Your task to perform on an android device: Check the news Image 0: 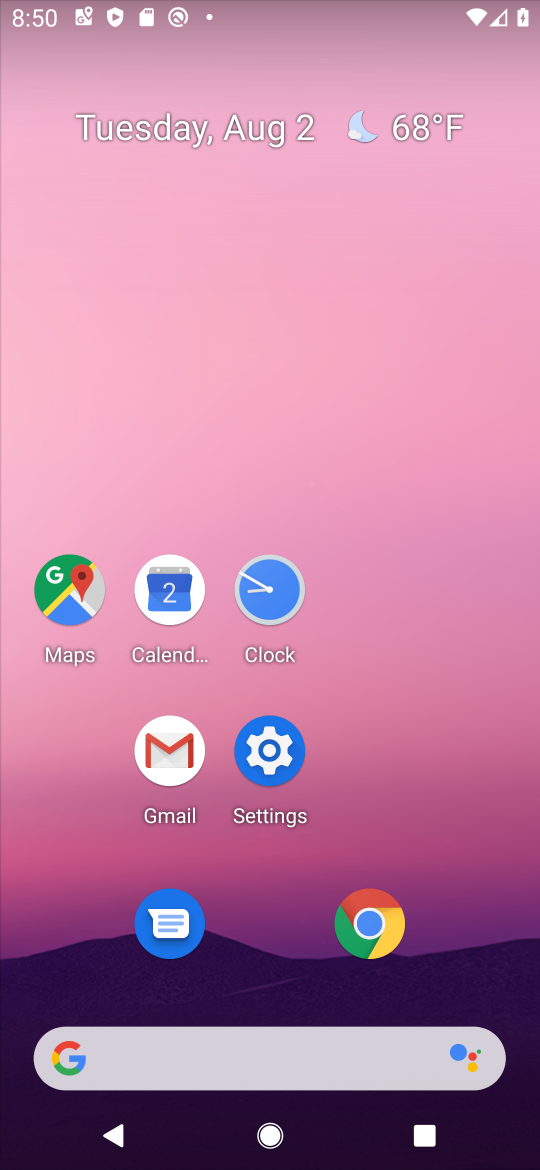
Step 0: drag from (9, 278) to (480, 273)
Your task to perform on an android device: Check the news Image 1: 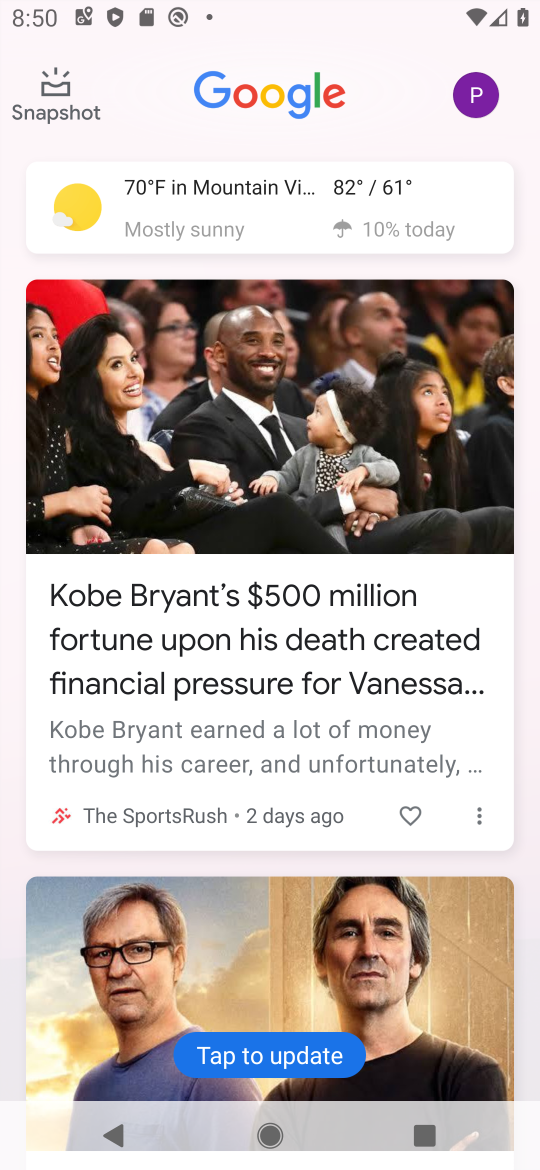
Step 1: task complete